Your task to perform on an android device: Open my contact list Image 0: 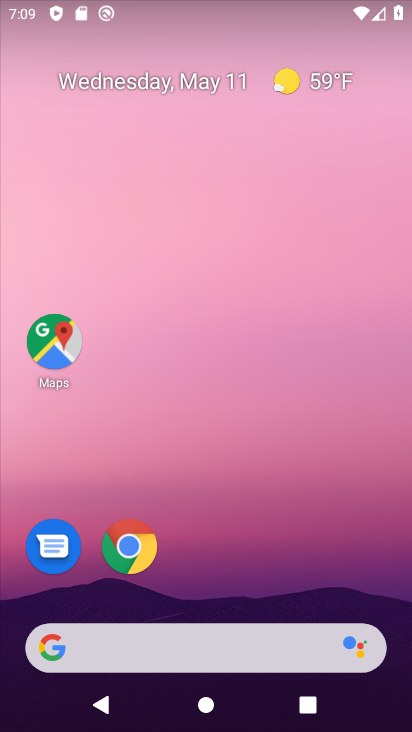
Step 0: drag from (297, 553) to (242, 119)
Your task to perform on an android device: Open my contact list Image 1: 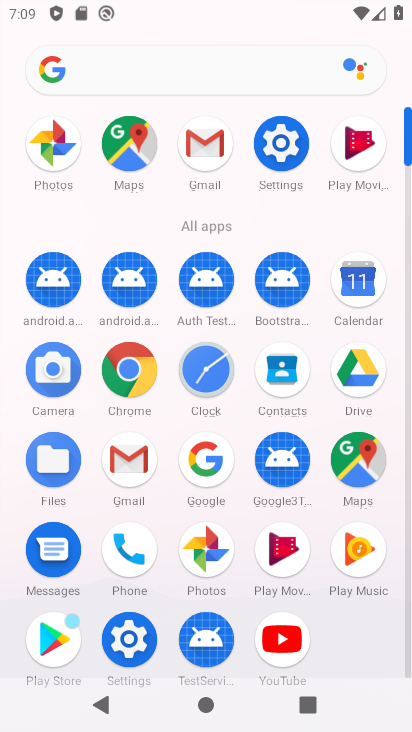
Step 1: click (295, 362)
Your task to perform on an android device: Open my contact list Image 2: 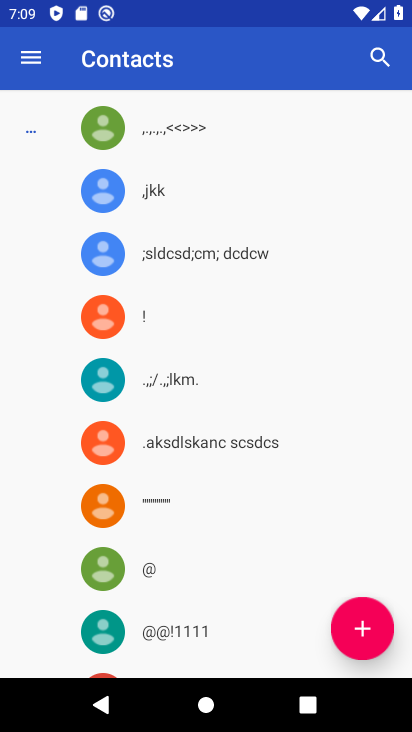
Step 2: task complete